Your task to perform on an android device: find snoozed emails in the gmail app Image 0: 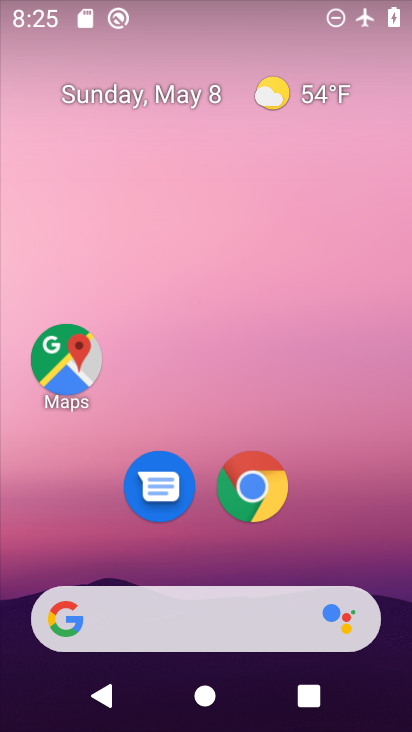
Step 0: drag from (142, 516) to (128, 204)
Your task to perform on an android device: find snoozed emails in the gmail app Image 1: 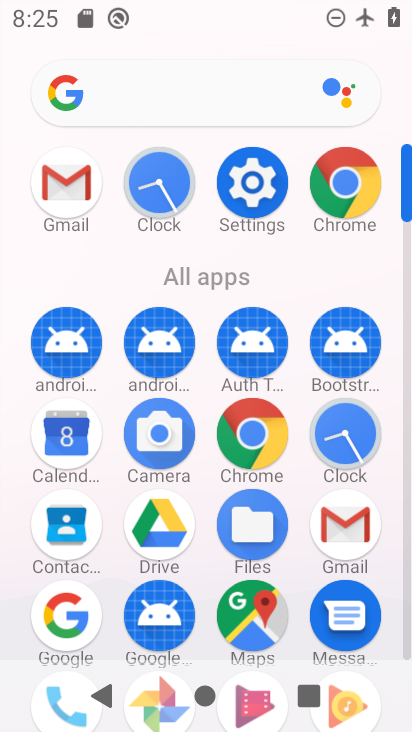
Step 1: click (60, 194)
Your task to perform on an android device: find snoozed emails in the gmail app Image 2: 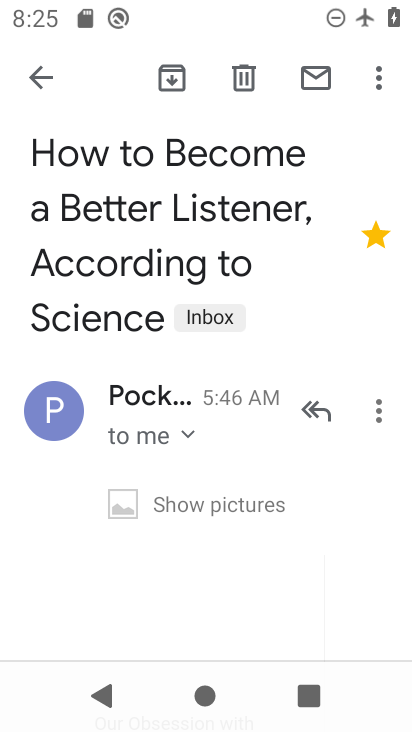
Step 2: click (41, 84)
Your task to perform on an android device: find snoozed emails in the gmail app Image 3: 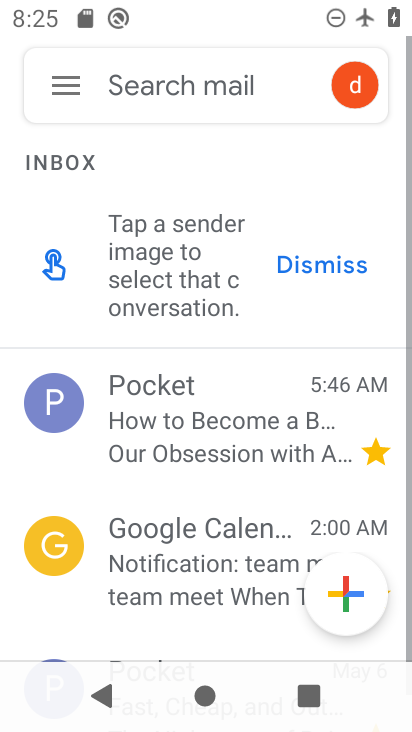
Step 3: click (49, 84)
Your task to perform on an android device: find snoozed emails in the gmail app Image 4: 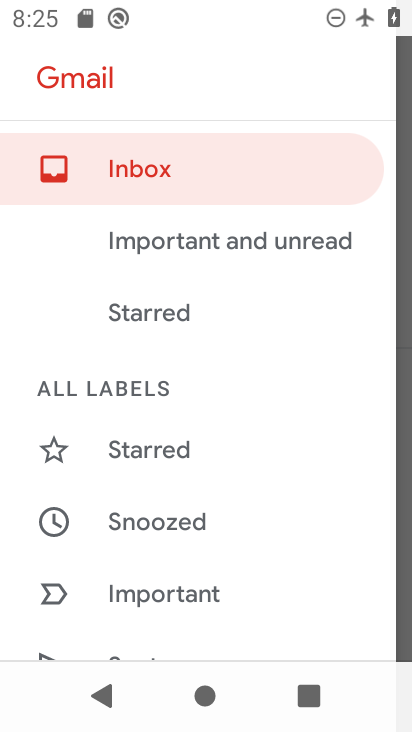
Step 4: click (201, 522)
Your task to perform on an android device: find snoozed emails in the gmail app Image 5: 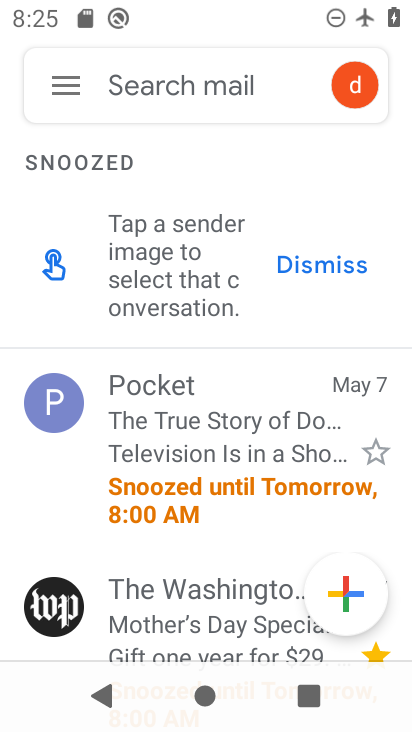
Step 5: task complete